Your task to perform on an android device: Open maps Image 0: 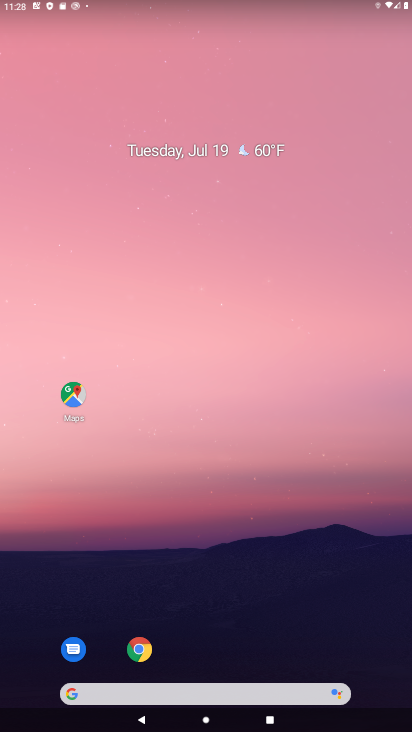
Step 0: click (75, 393)
Your task to perform on an android device: Open maps Image 1: 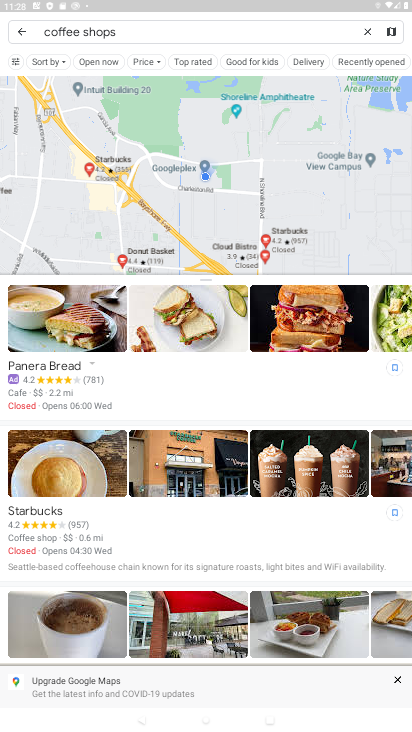
Step 1: task complete